Your task to perform on an android device: toggle javascript in the chrome app Image 0: 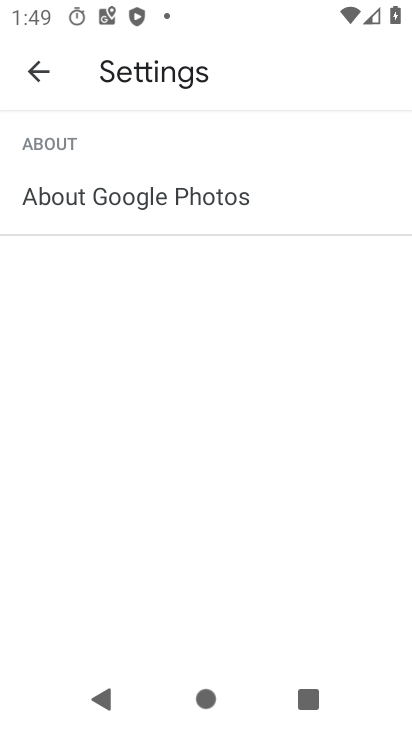
Step 0: press home button
Your task to perform on an android device: toggle javascript in the chrome app Image 1: 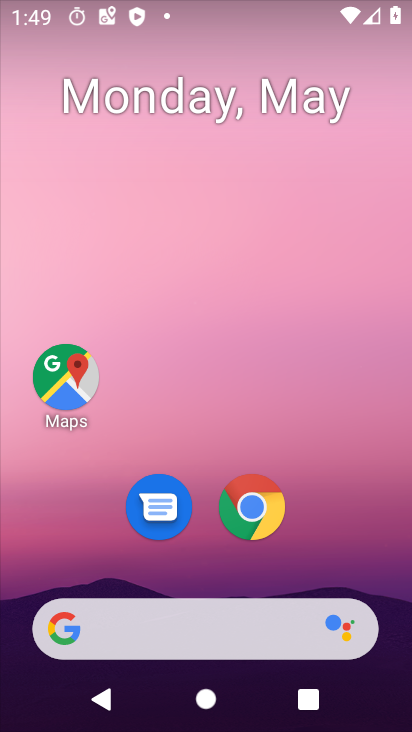
Step 1: drag from (309, 526) to (323, 145)
Your task to perform on an android device: toggle javascript in the chrome app Image 2: 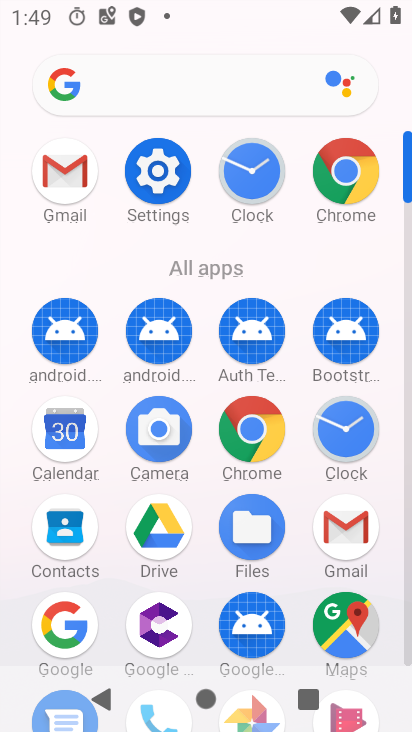
Step 2: click (173, 196)
Your task to perform on an android device: toggle javascript in the chrome app Image 3: 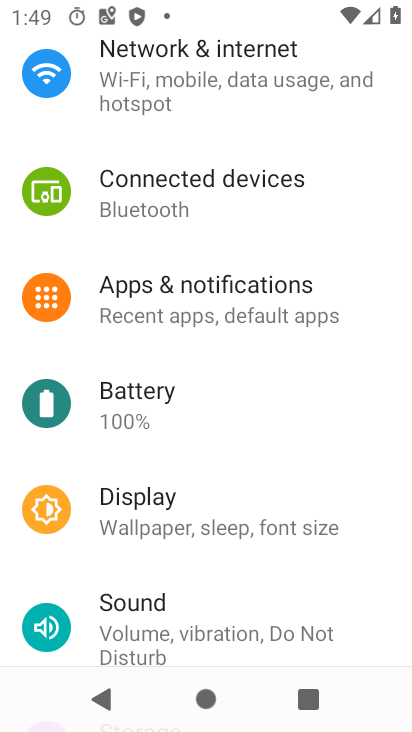
Step 3: drag from (330, 592) to (310, 290)
Your task to perform on an android device: toggle javascript in the chrome app Image 4: 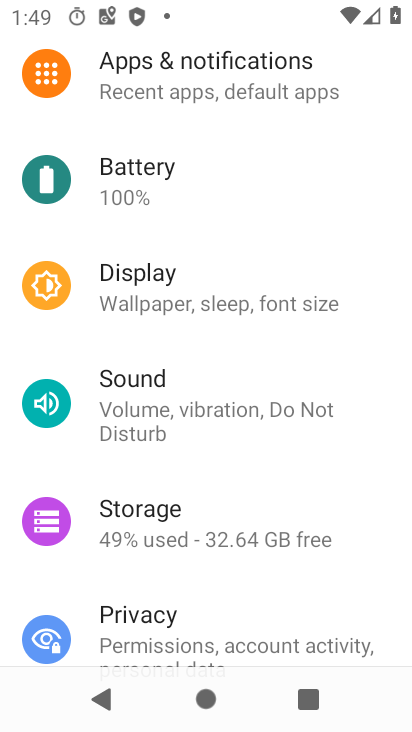
Step 4: drag from (320, 588) to (315, 425)
Your task to perform on an android device: toggle javascript in the chrome app Image 5: 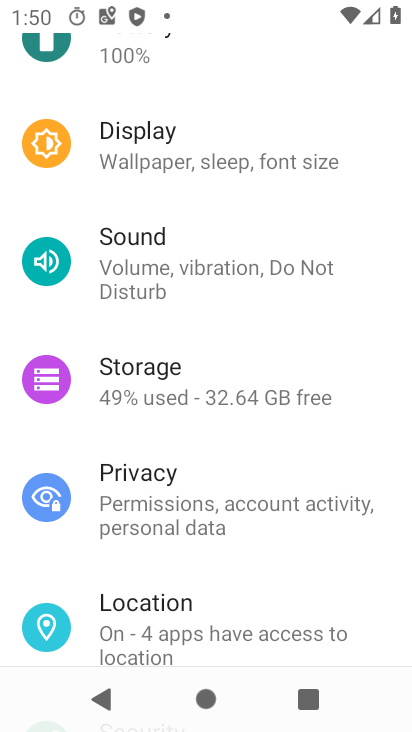
Step 5: drag from (297, 283) to (292, 562)
Your task to perform on an android device: toggle javascript in the chrome app Image 6: 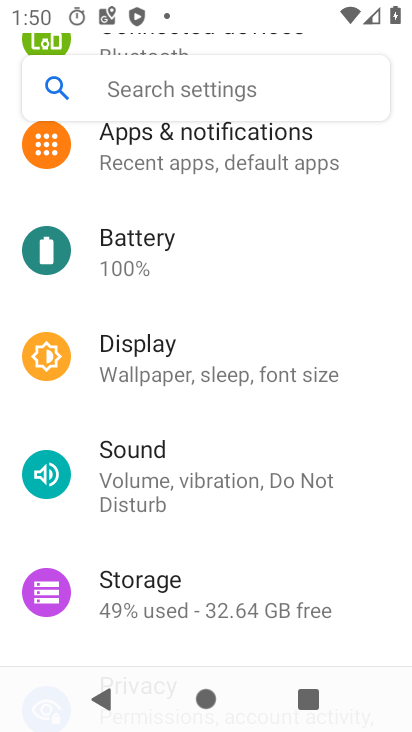
Step 6: drag from (254, 323) to (246, 674)
Your task to perform on an android device: toggle javascript in the chrome app Image 7: 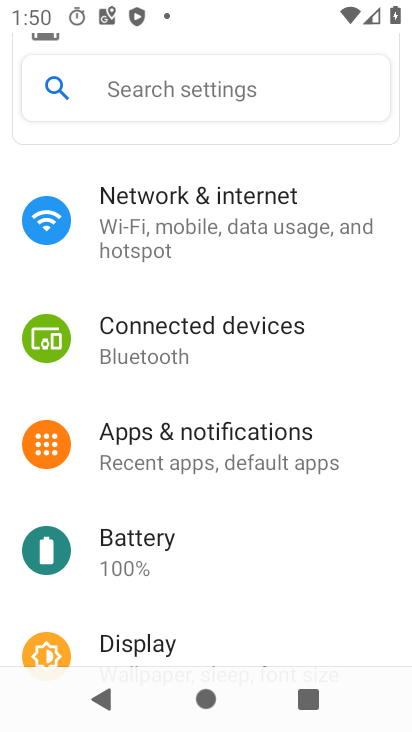
Step 7: drag from (191, 622) to (171, 260)
Your task to perform on an android device: toggle javascript in the chrome app Image 8: 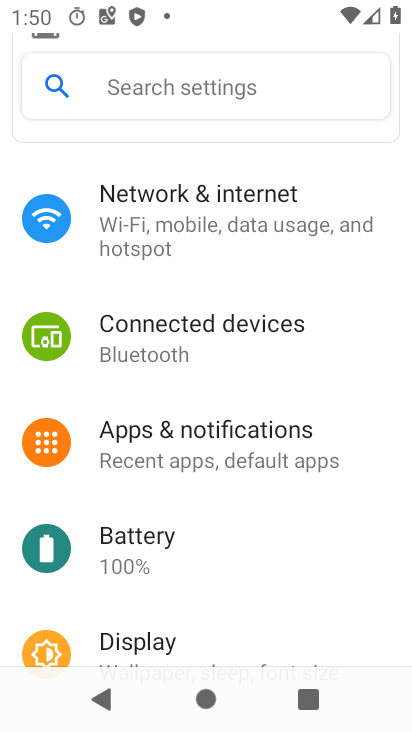
Step 8: drag from (286, 618) to (221, 270)
Your task to perform on an android device: toggle javascript in the chrome app Image 9: 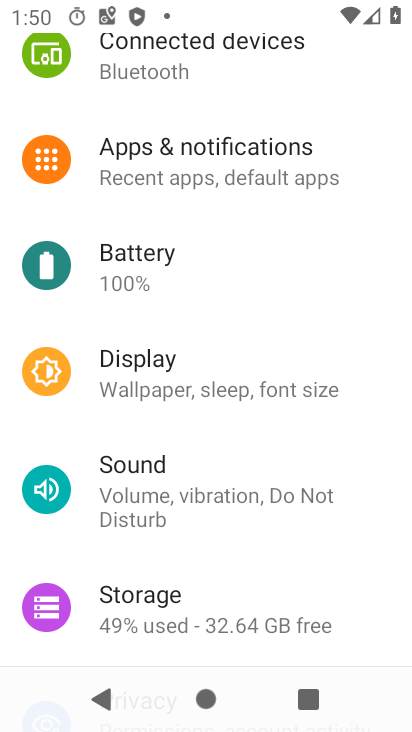
Step 9: drag from (264, 547) to (253, 247)
Your task to perform on an android device: toggle javascript in the chrome app Image 10: 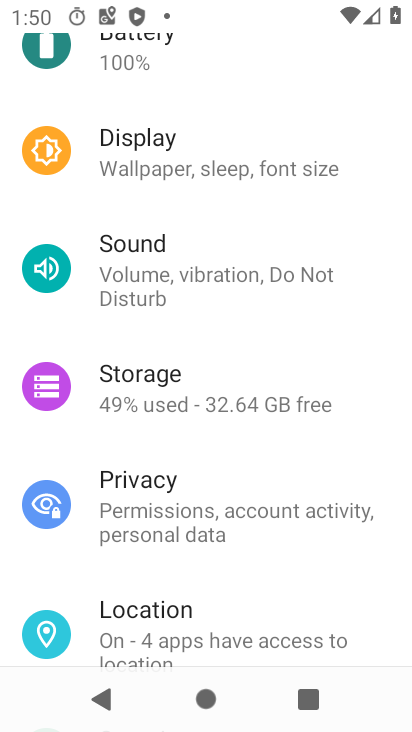
Step 10: press home button
Your task to perform on an android device: toggle javascript in the chrome app Image 11: 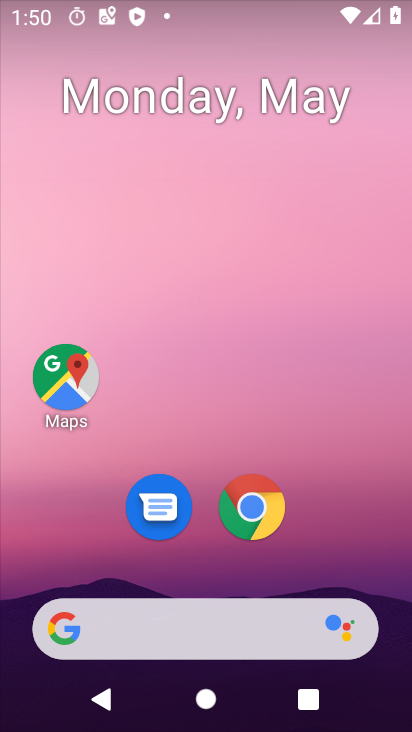
Step 11: drag from (380, 578) to (326, 82)
Your task to perform on an android device: toggle javascript in the chrome app Image 12: 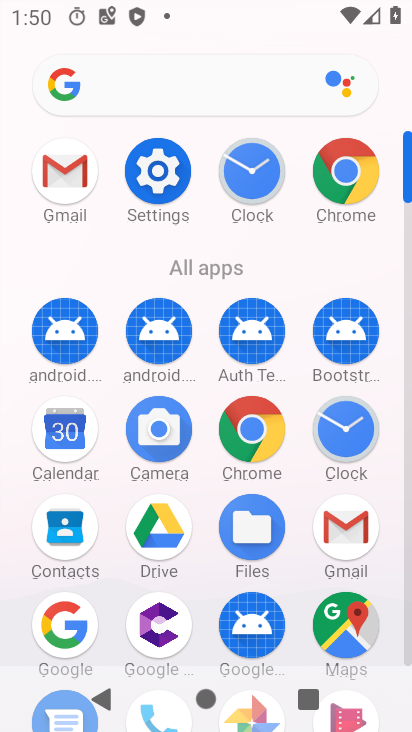
Step 12: click (250, 459)
Your task to perform on an android device: toggle javascript in the chrome app Image 13: 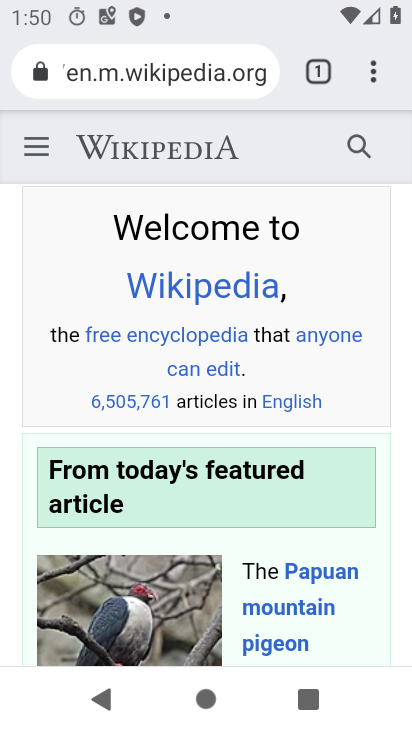
Step 13: click (384, 83)
Your task to perform on an android device: toggle javascript in the chrome app Image 14: 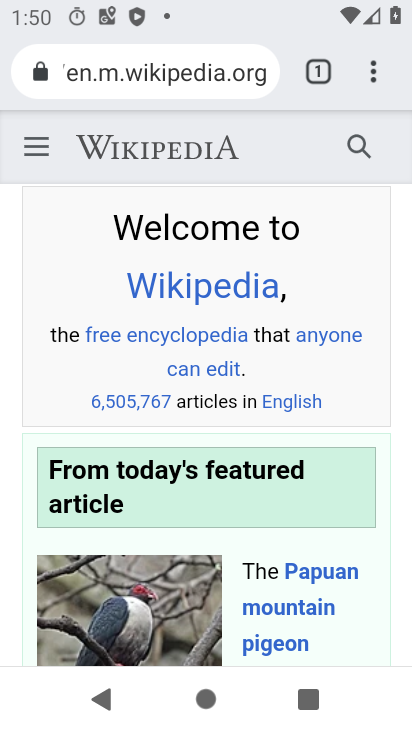
Step 14: drag from (372, 79) to (285, 510)
Your task to perform on an android device: toggle javascript in the chrome app Image 15: 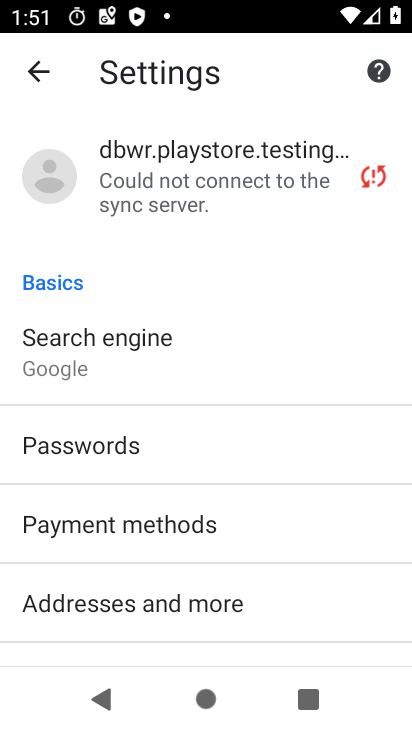
Step 15: drag from (298, 598) to (305, 243)
Your task to perform on an android device: toggle javascript in the chrome app Image 16: 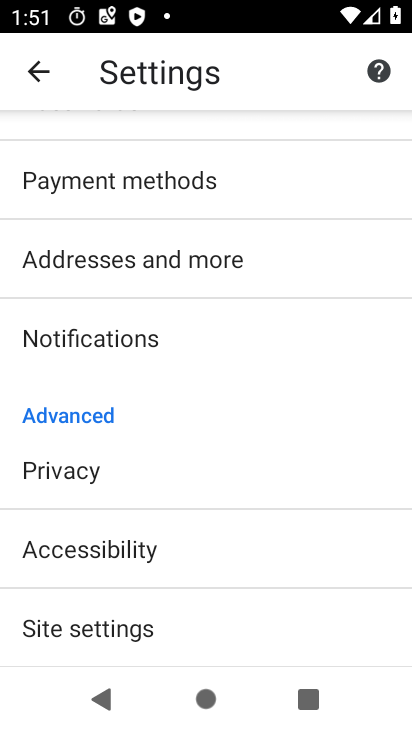
Step 16: click (243, 623)
Your task to perform on an android device: toggle javascript in the chrome app Image 17: 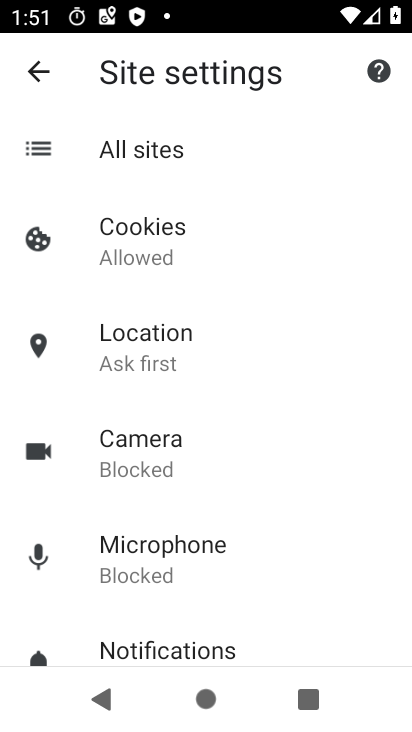
Step 17: drag from (214, 578) to (218, 251)
Your task to perform on an android device: toggle javascript in the chrome app Image 18: 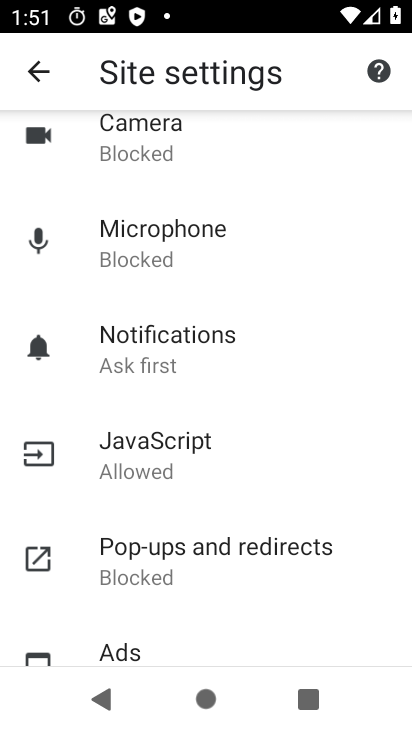
Step 18: click (200, 450)
Your task to perform on an android device: toggle javascript in the chrome app Image 19: 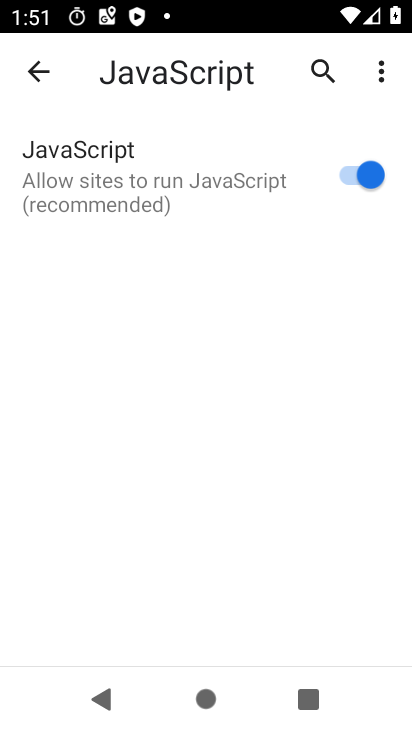
Step 19: click (352, 180)
Your task to perform on an android device: toggle javascript in the chrome app Image 20: 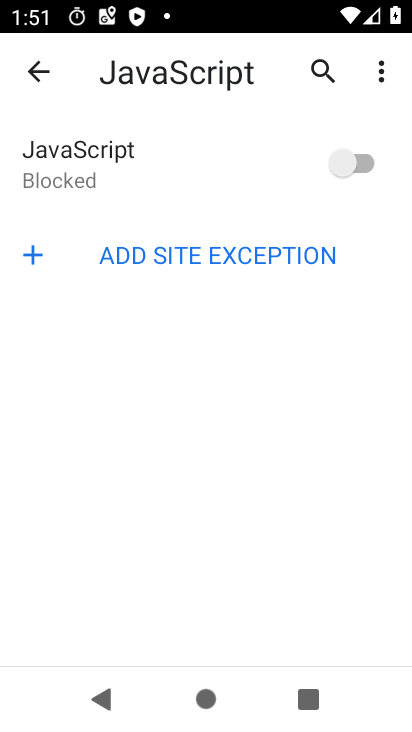
Step 20: task complete